Your task to perform on an android device: Open calendar and show me the fourth week of next month Image 0: 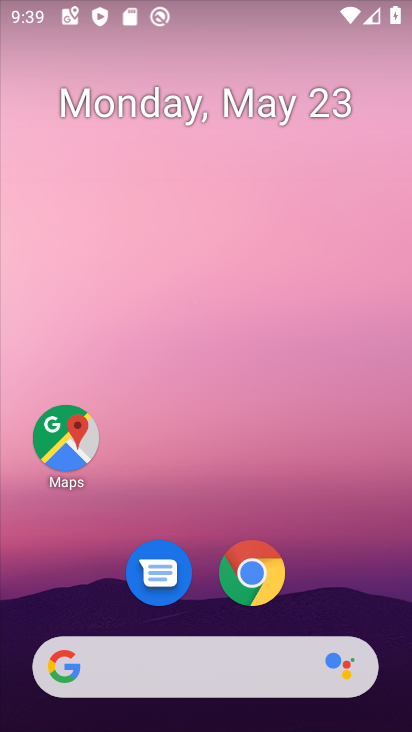
Step 0: drag from (375, 580) to (368, 251)
Your task to perform on an android device: Open calendar and show me the fourth week of next month Image 1: 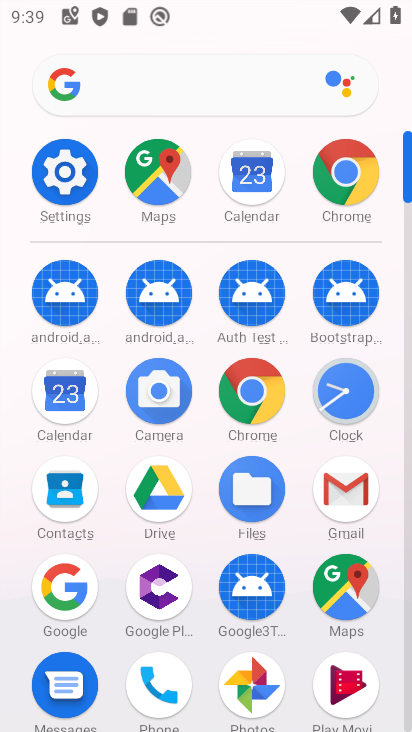
Step 1: click (76, 398)
Your task to perform on an android device: Open calendar and show me the fourth week of next month Image 2: 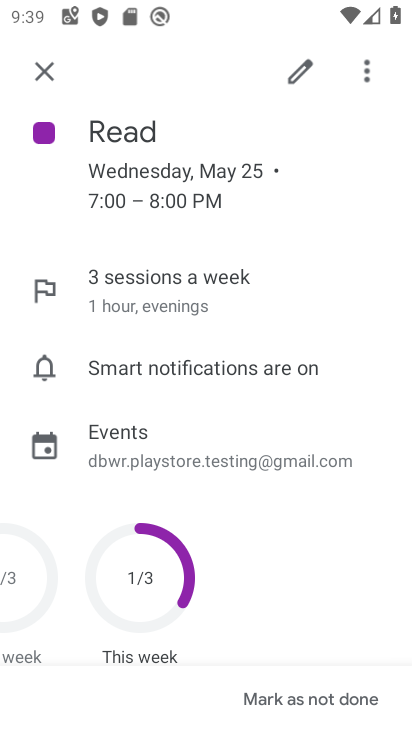
Step 2: click (37, 63)
Your task to perform on an android device: Open calendar and show me the fourth week of next month Image 3: 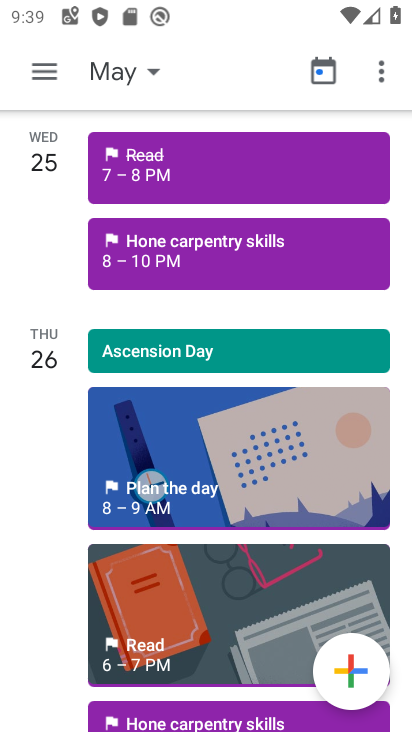
Step 3: click (159, 70)
Your task to perform on an android device: Open calendar and show me the fourth week of next month Image 4: 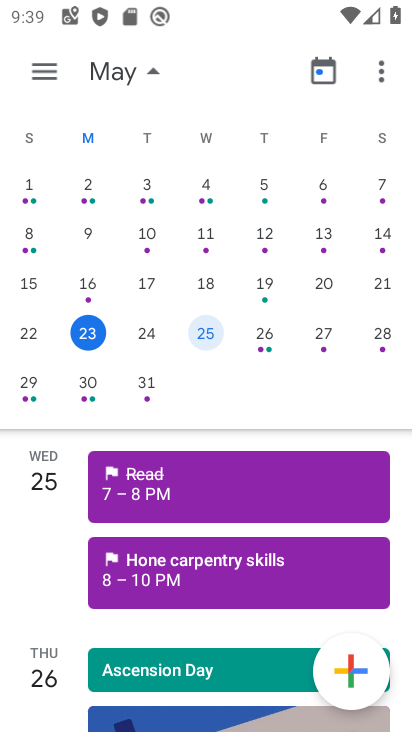
Step 4: drag from (395, 154) to (55, 146)
Your task to perform on an android device: Open calendar and show me the fourth week of next month Image 5: 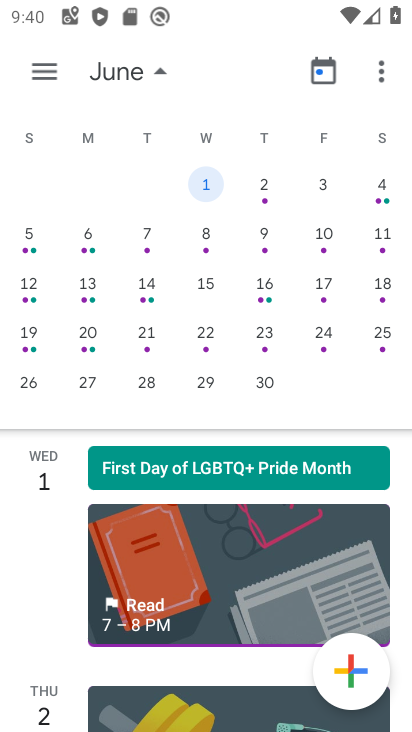
Step 5: click (79, 336)
Your task to perform on an android device: Open calendar and show me the fourth week of next month Image 6: 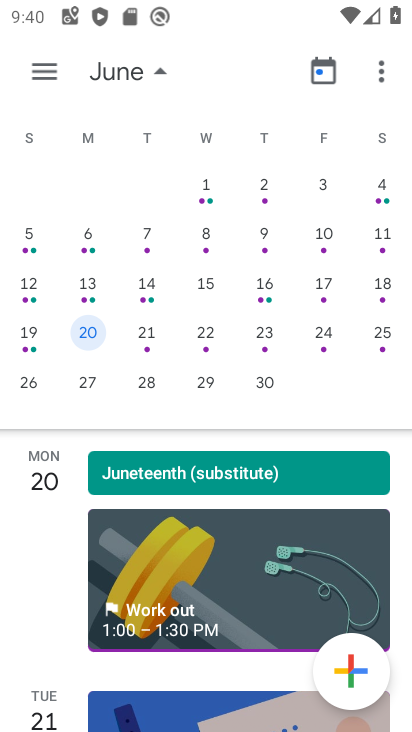
Step 6: task complete